Your task to perform on an android device: Open sound settings Image 0: 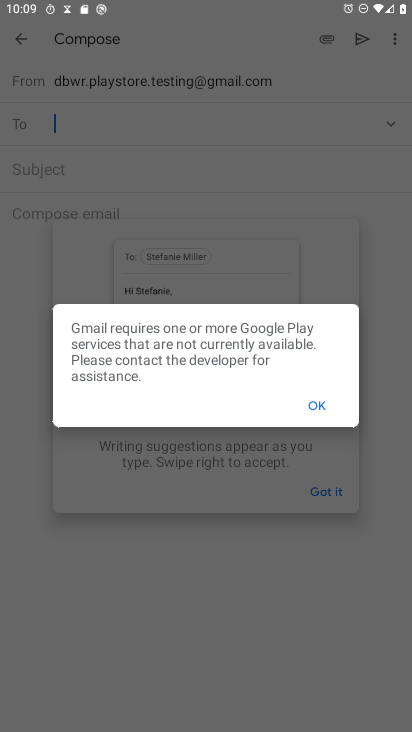
Step 0: click (317, 409)
Your task to perform on an android device: Open sound settings Image 1: 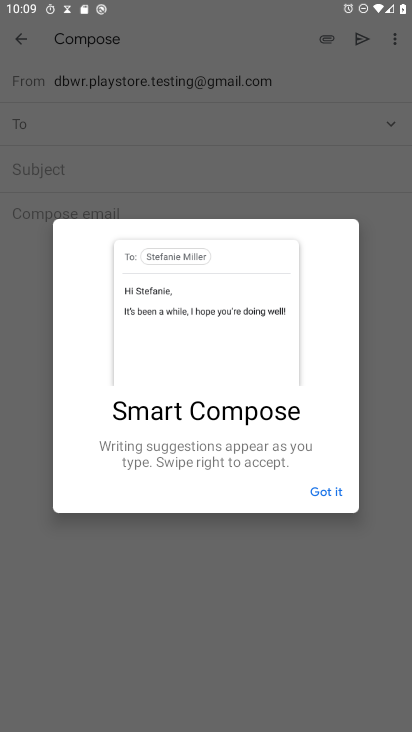
Step 1: press home button
Your task to perform on an android device: Open sound settings Image 2: 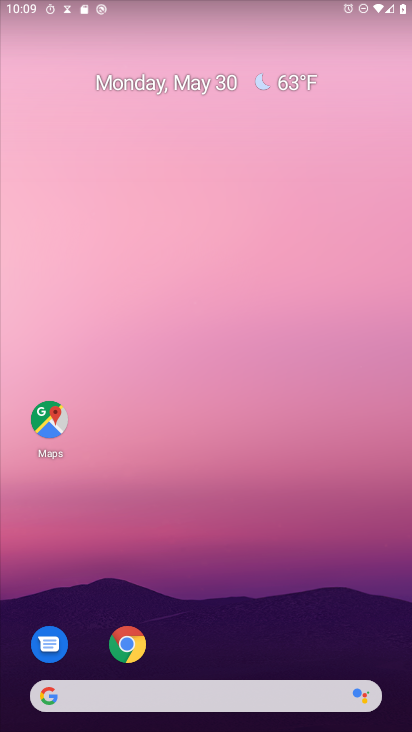
Step 2: drag from (185, 654) to (240, 45)
Your task to perform on an android device: Open sound settings Image 3: 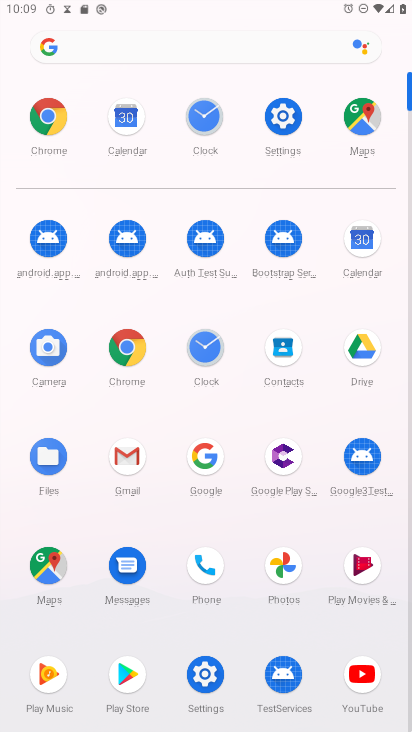
Step 3: click (282, 117)
Your task to perform on an android device: Open sound settings Image 4: 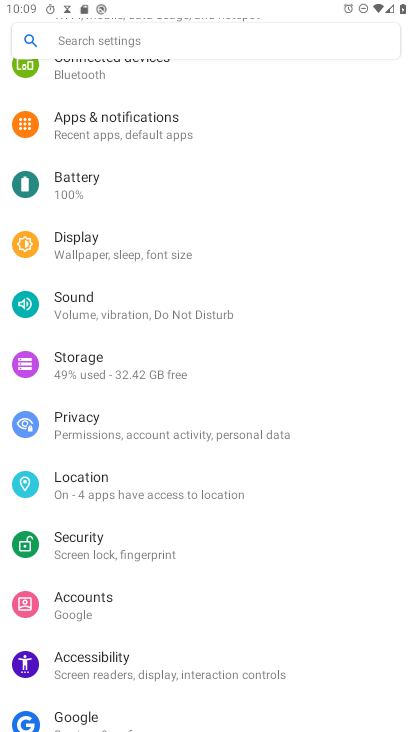
Step 4: click (101, 289)
Your task to perform on an android device: Open sound settings Image 5: 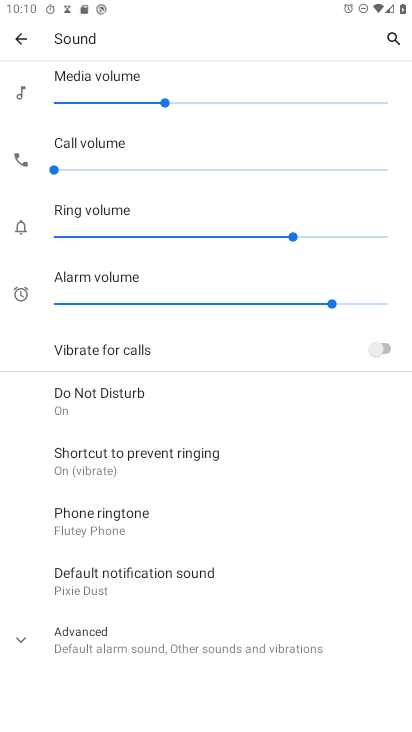
Step 5: task complete